Your task to perform on an android device: open wifi settings Image 0: 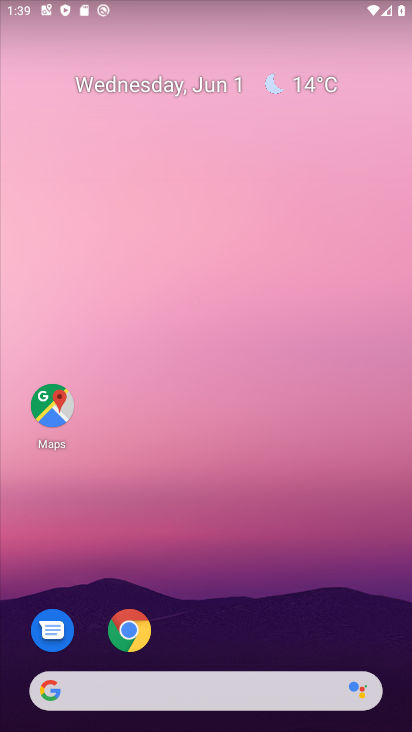
Step 0: drag from (214, 649) to (244, 129)
Your task to perform on an android device: open wifi settings Image 1: 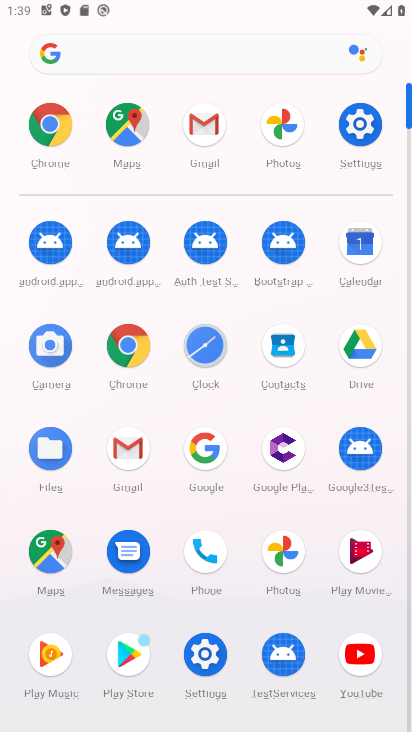
Step 1: click (355, 116)
Your task to perform on an android device: open wifi settings Image 2: 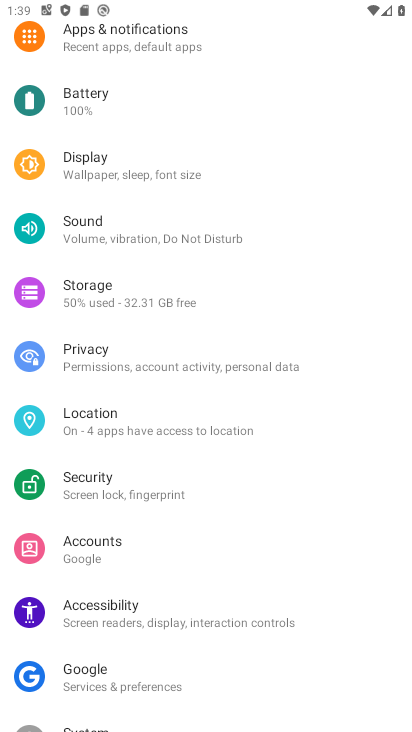
Step 2: drag from (162, 86) to (146, 526)
Your task to perform on an android device: open wifi settings Image 3: 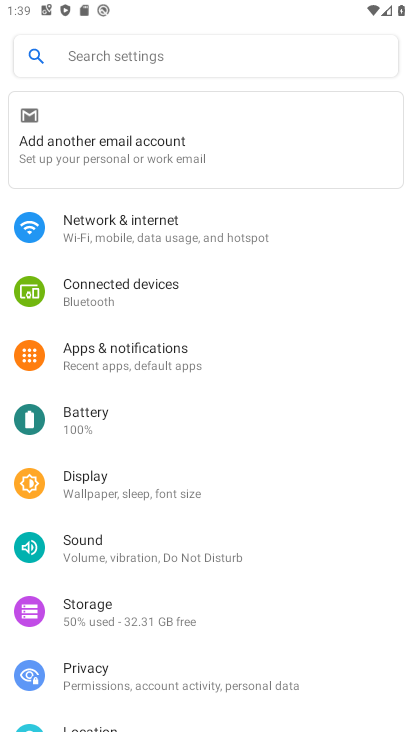
Step 3: click (192, 220)
Your task to perform on an android device: open wifi settings Image 4: 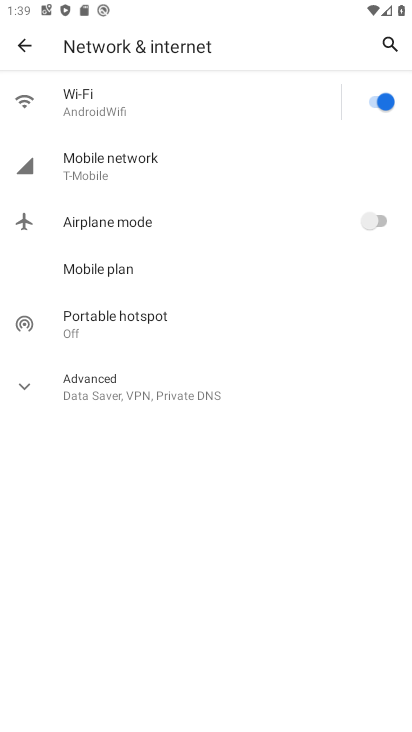
Step 4: click (19, 379)
Your task to perform on an android device: open wifi settings Image 5: 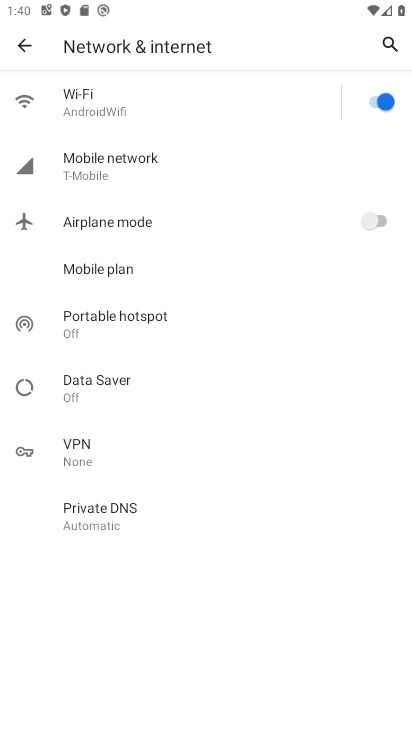
Step 5: task complete